Your task to perform on an android device: What's the weather going to be tomorrow? Image 0: 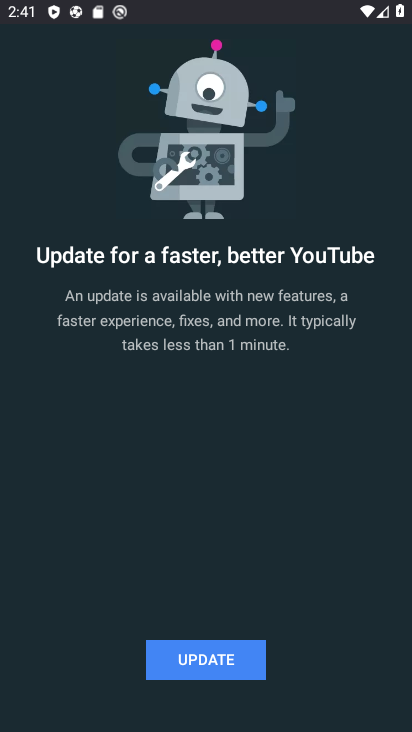
Step 0: press home button
Your task to perform on an android device: What's the weather going to be tomorrow? Image 1: 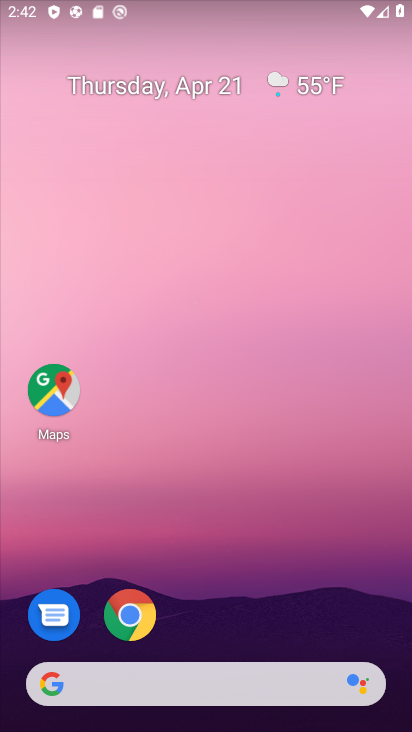
Step 1: click (311, 84)
Your task to perform on an android device: What's the weather going to be tomorrow? Image 2: 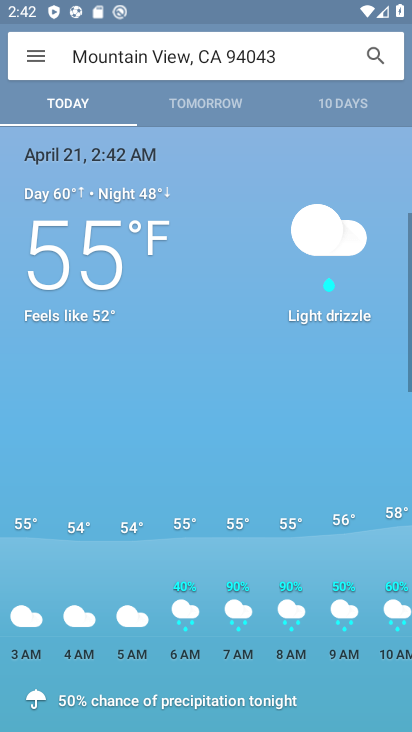
Step 2: click (223, 104)
Your task to perform on an android device: What's the weather going to be tomorrow? Image 3: 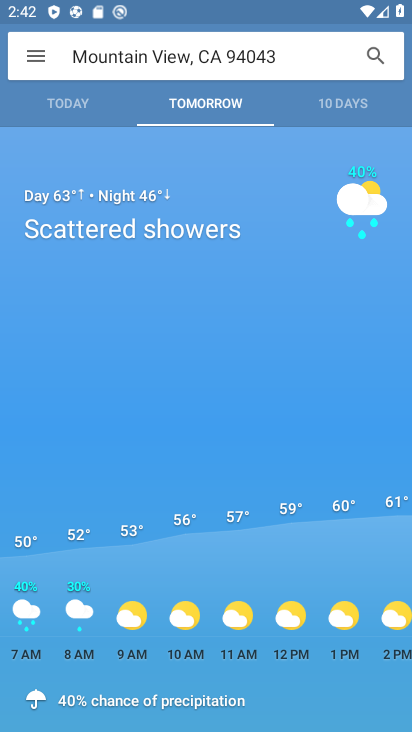
Step 3: task complete